Your task to perform on an android device: turn on the 12-hour format for clock Image 0: 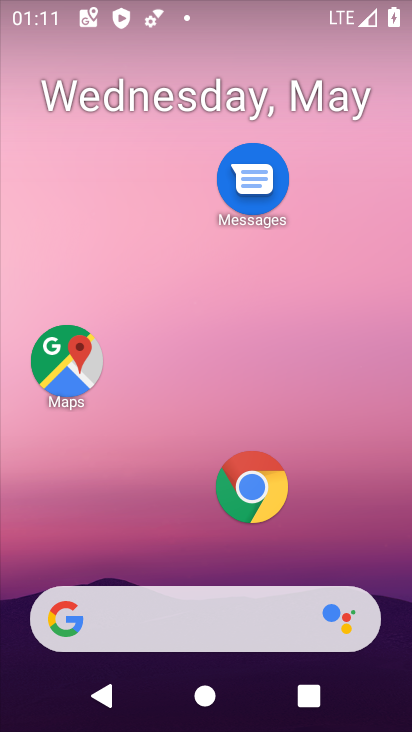
Step 0: drag from (160, 542) to (253, 20)
Your task to perform on an android device: turn on the 12-hour format for clock Image 1: 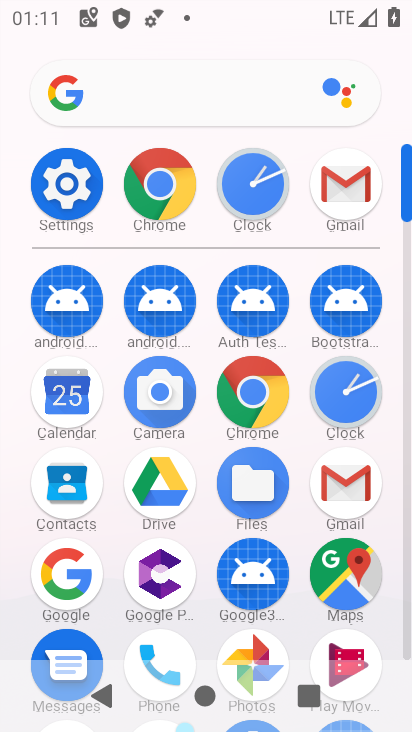
Step 1: click (67, 182)
Your task to perform on an android device: turn on the 12-hour format for clock Image 2: 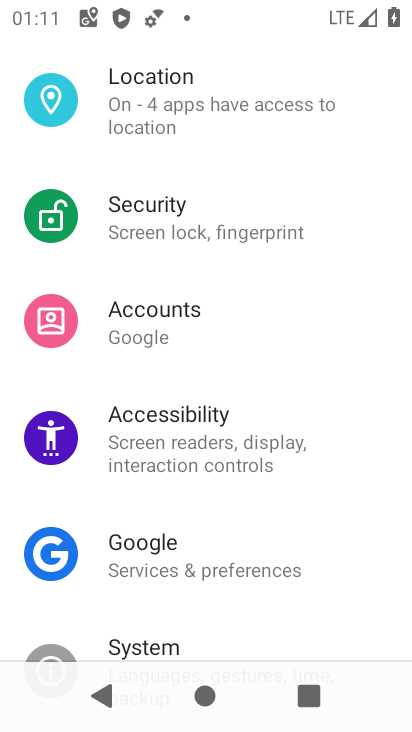
Step 2: drag from (233, 603) to (296, 228)
Your task to perform on an android device: turn on the 12-hour format for clock Image 3: 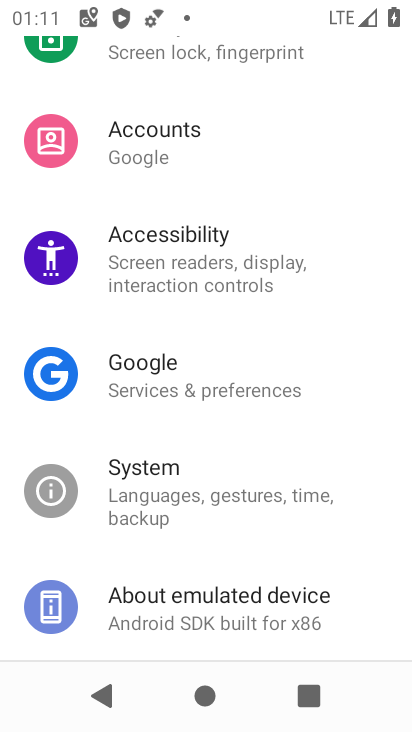
Step 3: drag from (246, 519) to (318, 78)
Your task to perform on an android device: turn on the 12-hour format for clock Image 4: 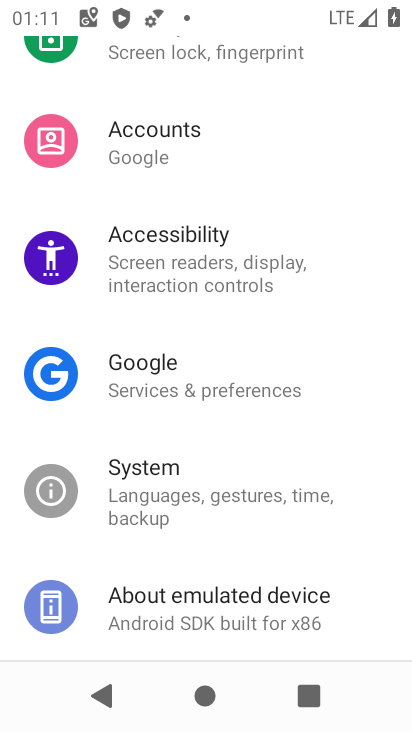
Step 4: click (204, 500)
Your task to perform on an android device: turn on the 12-hour format for clock Image 5: 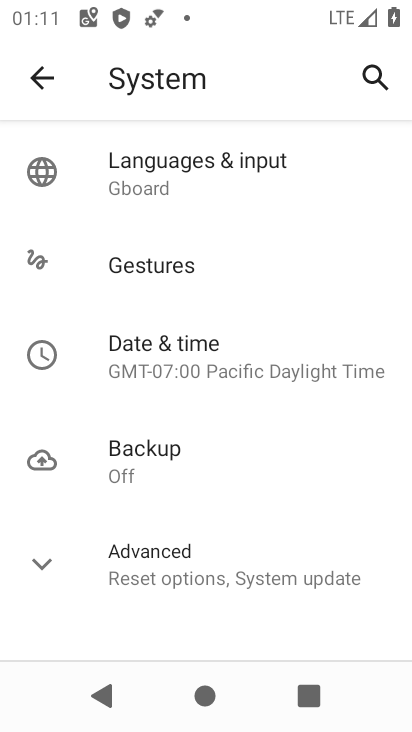
Step 5: click (227, 370)
Your task to perform on an android device: turn on the 12-hour format for clock Image 6: 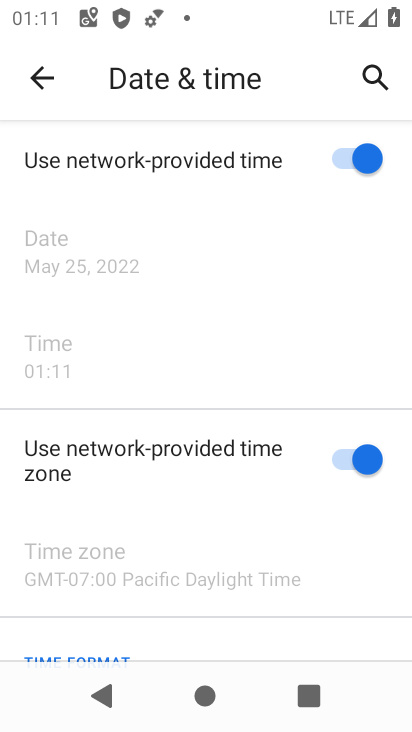
Step 6: drag from (257, 555) to (370, 179)
Your task to perform on an android device: turn on the 12-hour format for clock Image 7: 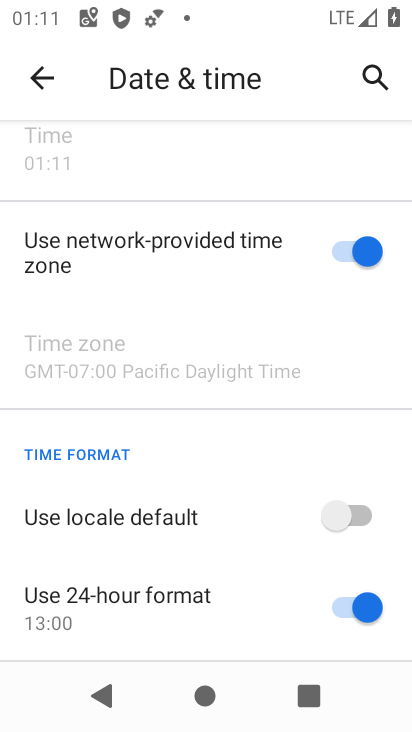
Step 7: click (352, 508)
Your task to perform on an android device: turn on the 12-hour format for clock Image 8: 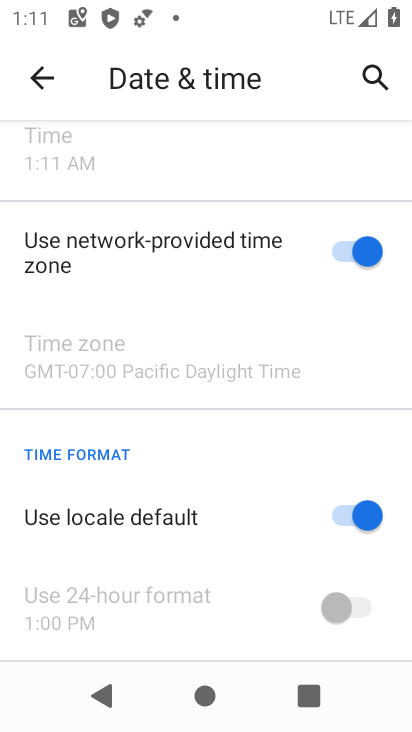
Step 8: task complete